Your task to perform on an android device: Add logitech g pro to the cart on bestbuy Image 0: 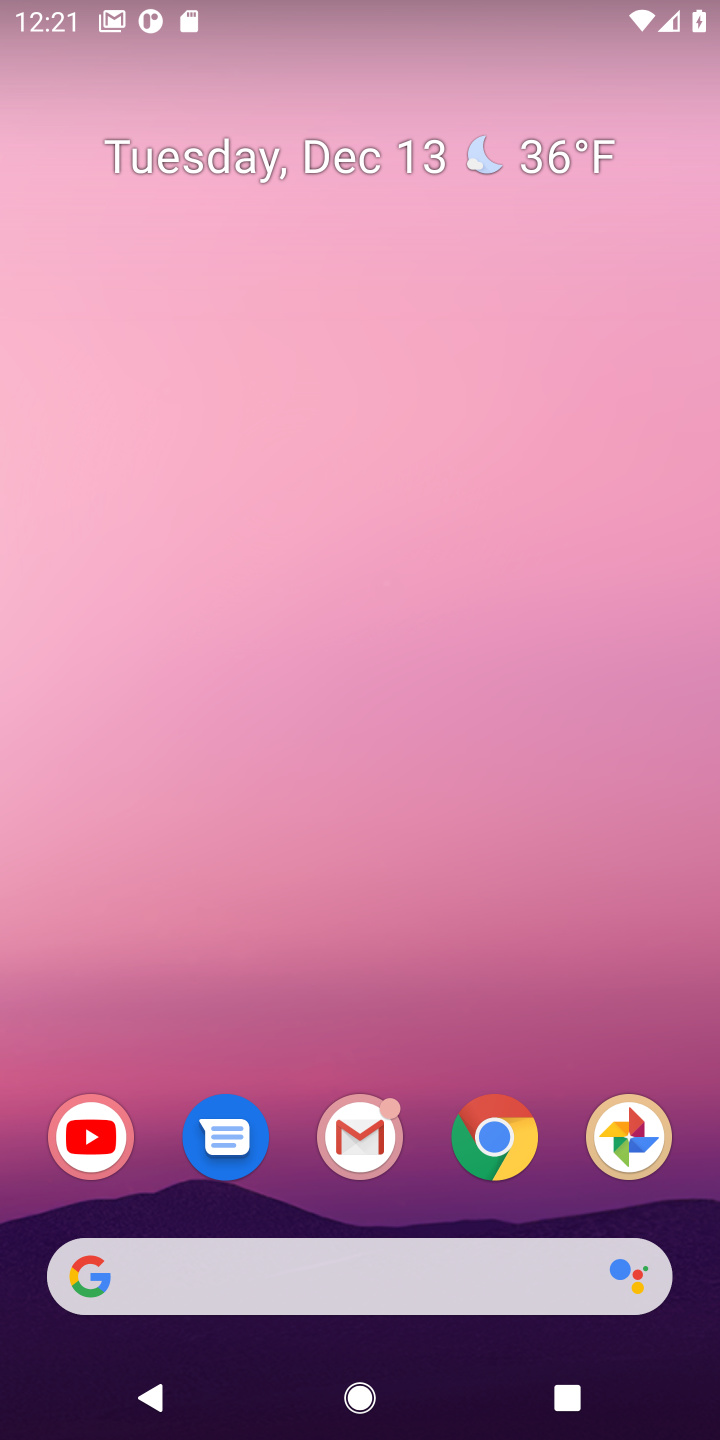
Step 0: click (466, 1277)
Your task to perform on an android device: Add logitech g pro to the cart on bestbuy Image 1: 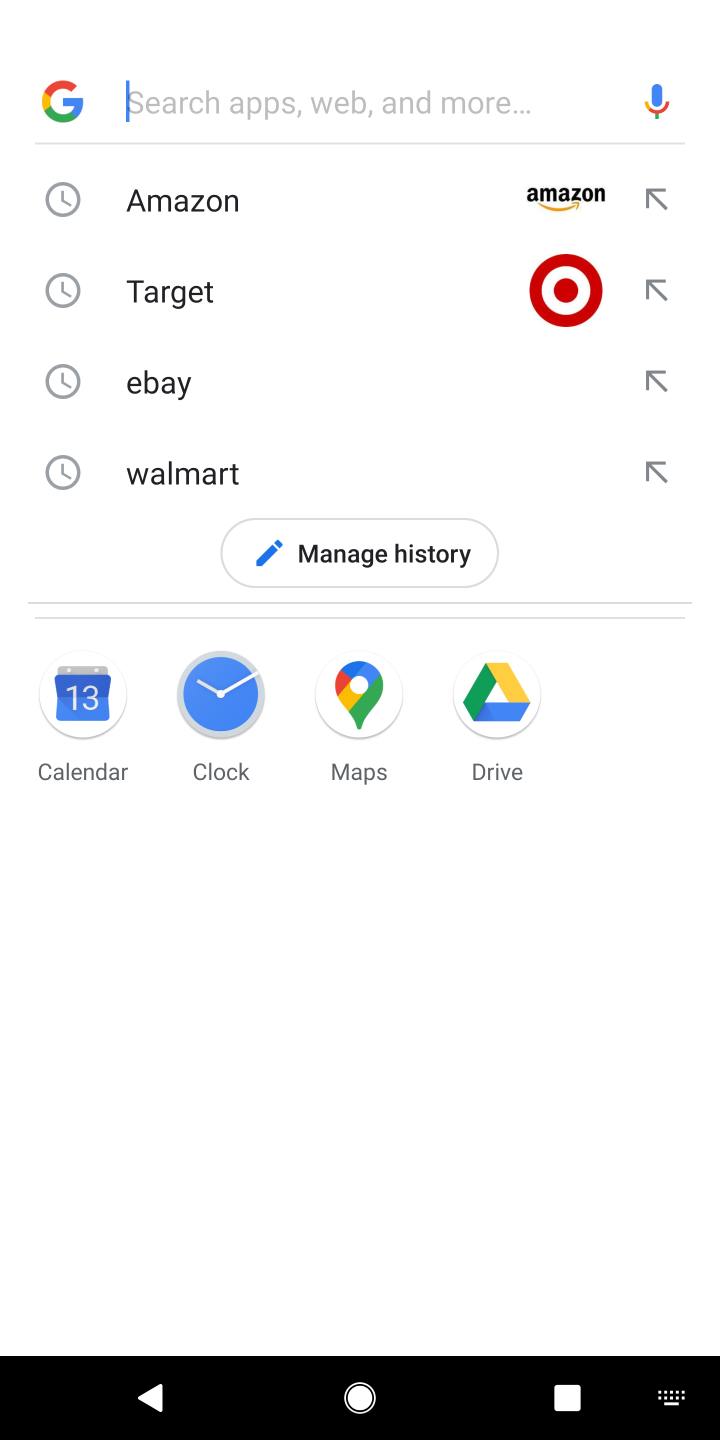
Step 1: type "bestbuy"
Your task to perform on an android device: Add logitech g pro to the cart on bestbuy Image 2: 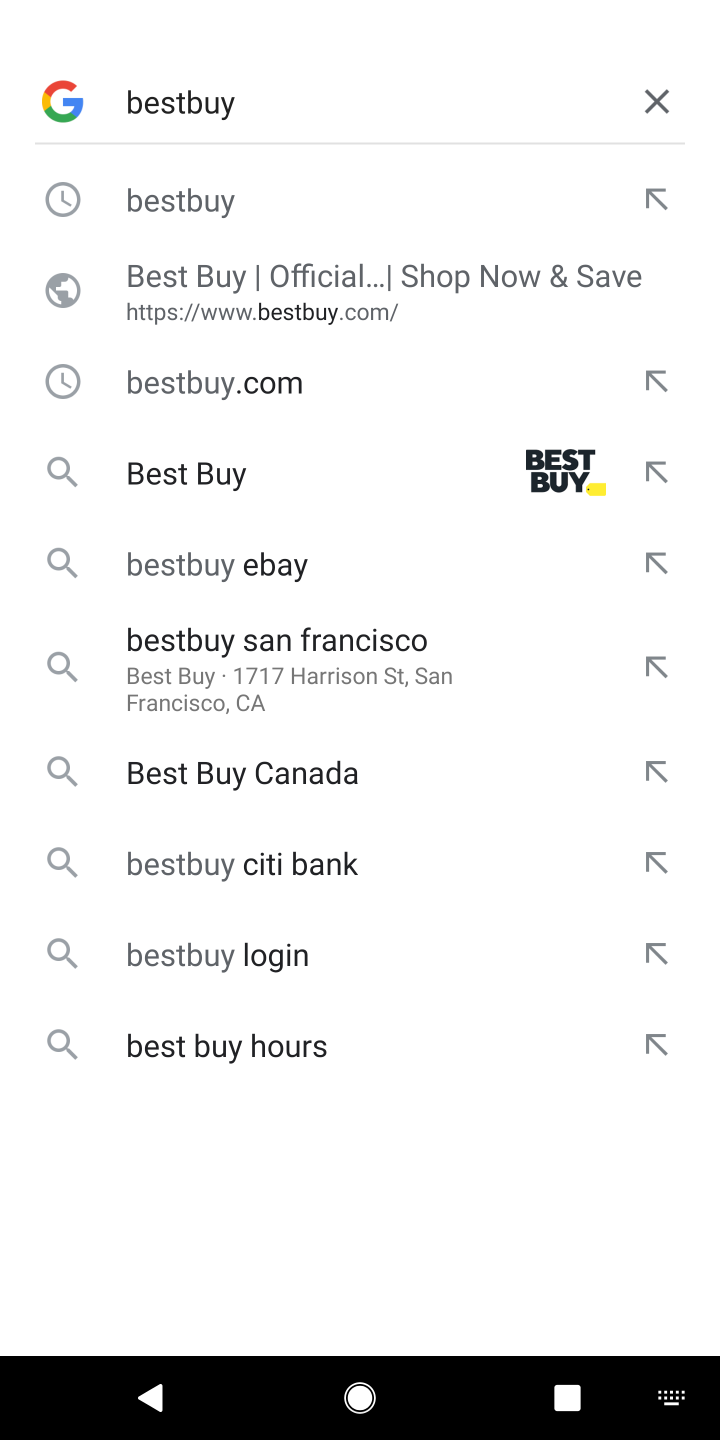
Step 2: click (233, 189)
Your task to perform on an android device: Add logitech g pro to the cart on bestbuy Image 3: 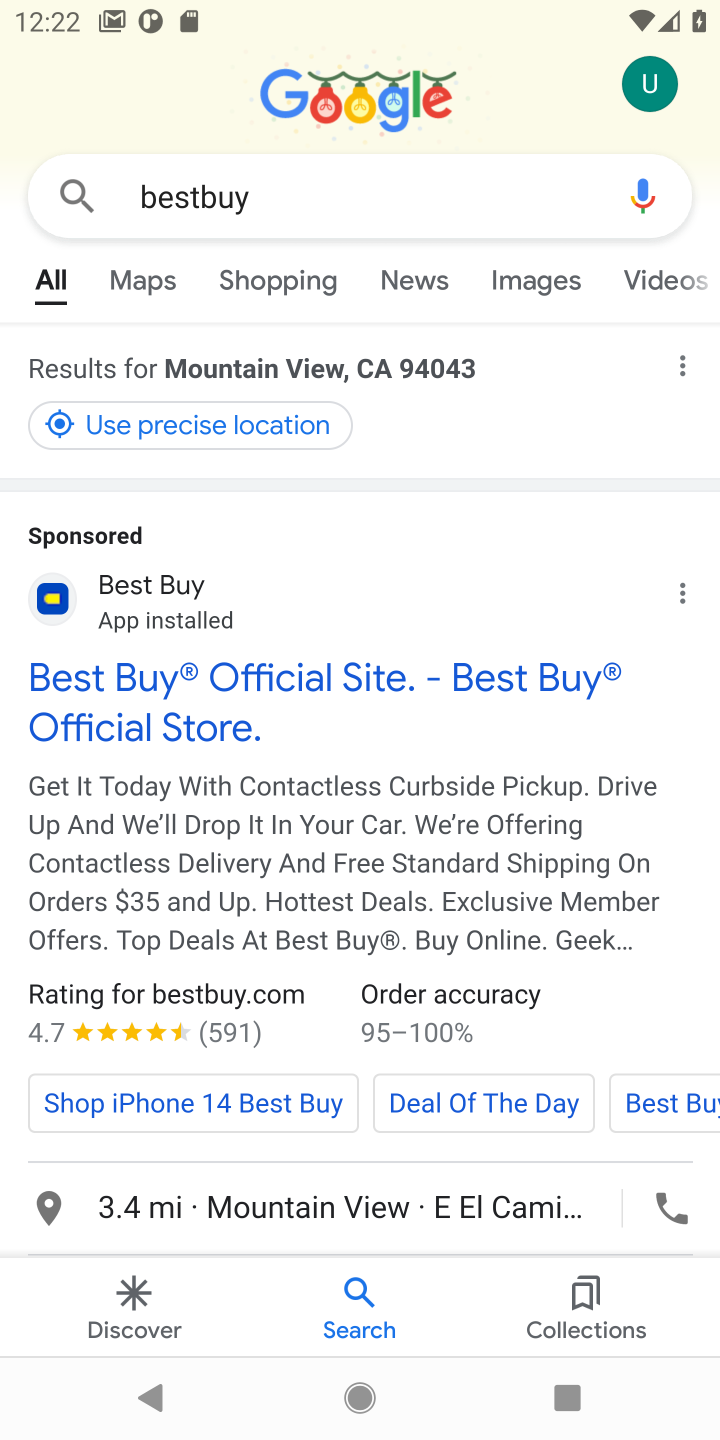
Step 3: click (165, 677)
Your task to perform on an android device: Add logitech g pro to the cart on bestbuy Image 4: 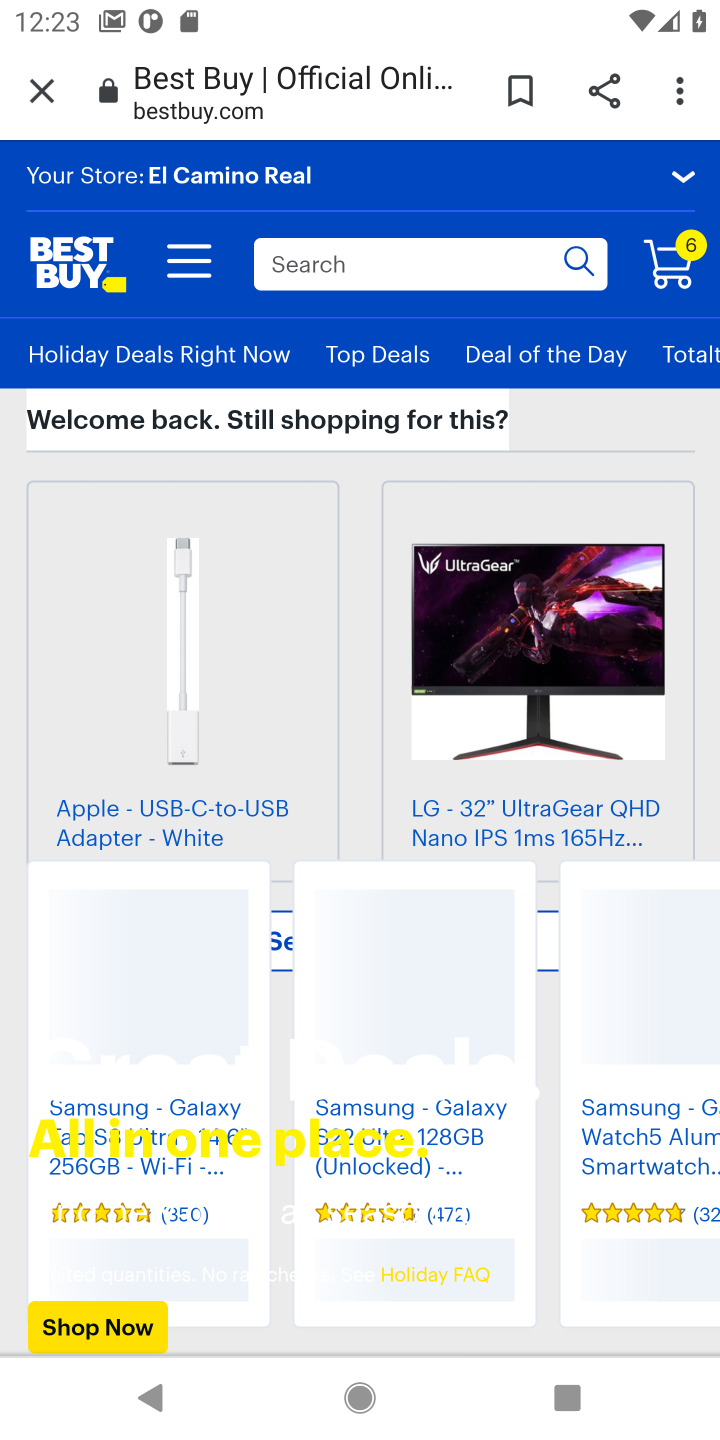
Step 4: task complete